Your task to perform on an android device: Play the last video I watched on Youtube Image 0: 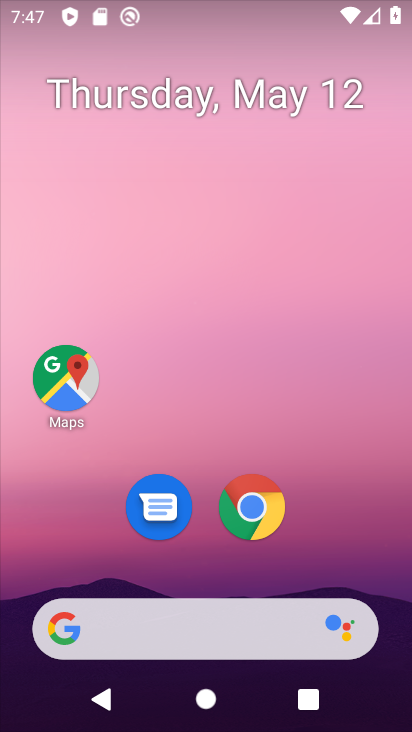
Step 0: drag from (191, 587) to (197, 137)
Your task to perform on an android device: Play the last video I watched on Youtube Image 1: 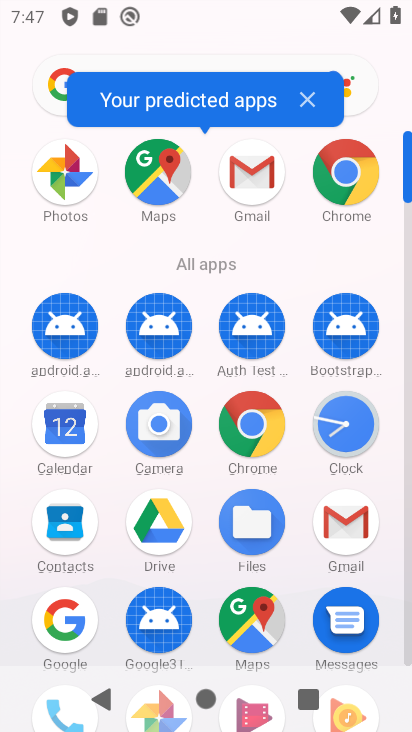
Step 1: drag from (286, 620) to (292, 259)
Your task to perform on an android device: Play the last video I watched on Youtube Image 2: 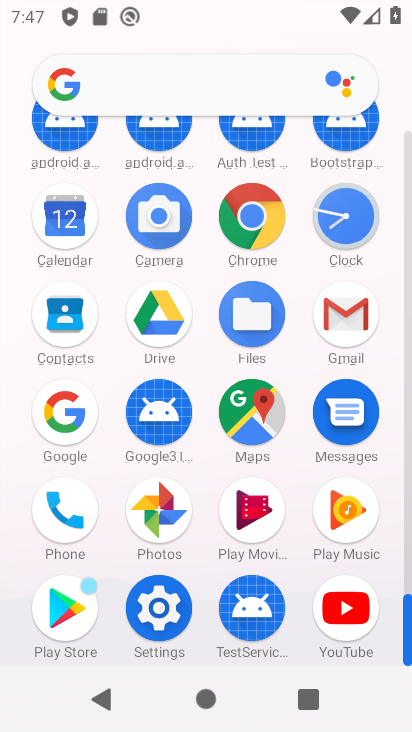
Step 2: click (336, 628)
Your task to perform on an android device: Play the last video I watched on Youtube Image 3: 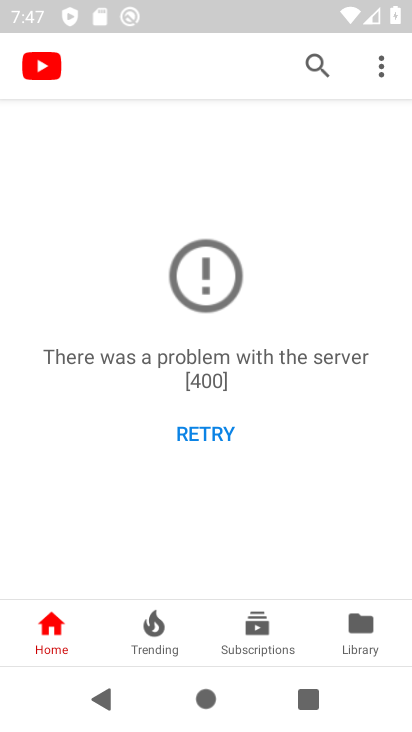
Step 3: click (354, 614)
Your task to perform on an android device: Play the last video I watched on Youtube Image 4: 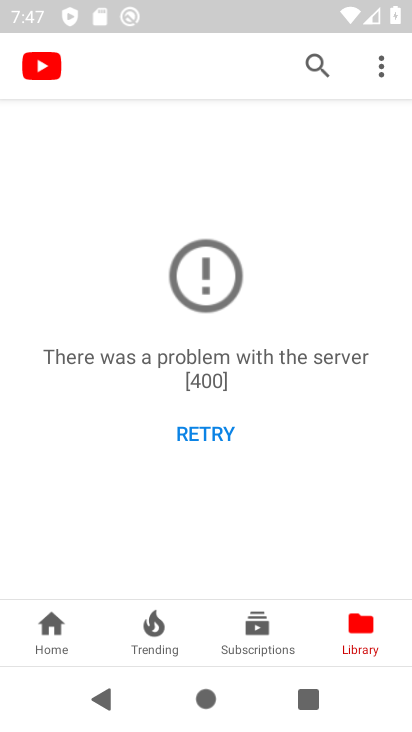
Step 4: click (226, 425)
Your task to perform on an android device: Play the last video I watched on Youtube Image 5: 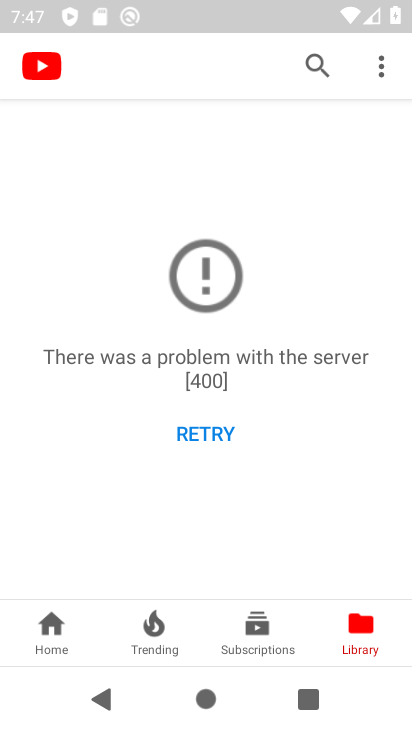
Step 5: click (218, 446)
Your task to perform on an android device: Play the last video I watched on Youtube Image 6: 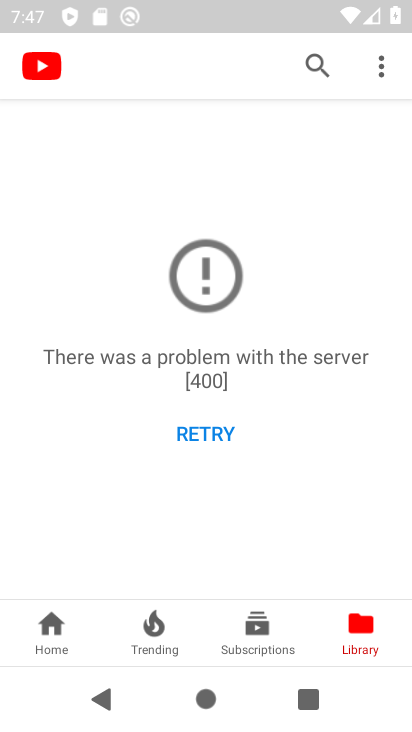
Step 6: task complete